Your task to perform on an android device: Go to location settings Image 0: 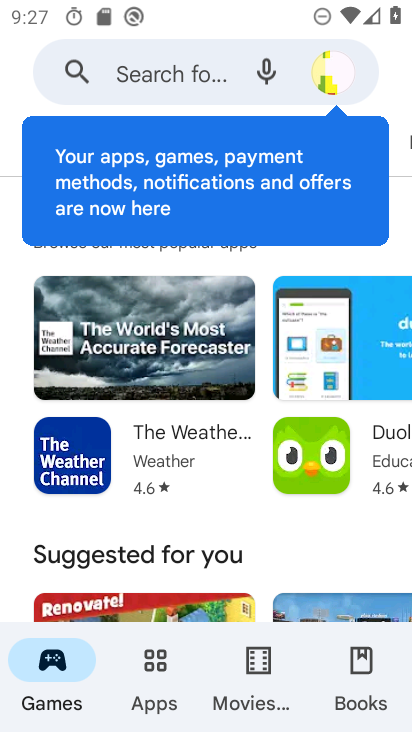
Step 0: press home button
Your task to perform on an android device: Go to location settings Image 1: 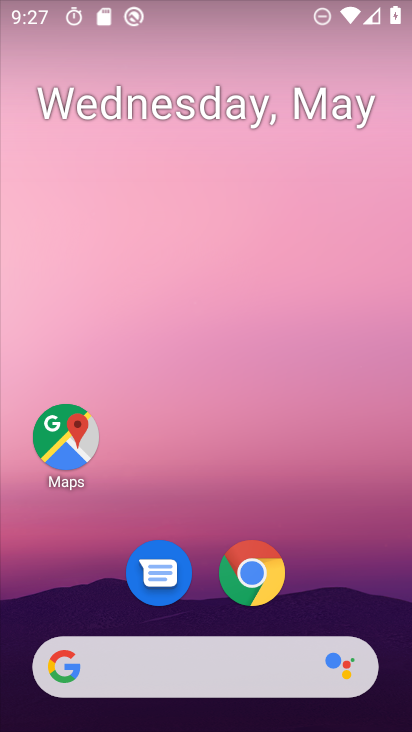
Step 1: click (69, 433)
Your task to perform on an android device: Go to location settings Image 2: 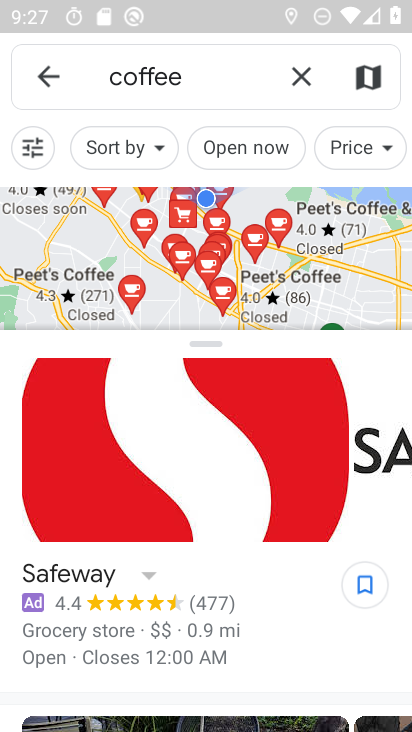
Step 2: press home button
Your task to perform on an android device: Go to location settings Image 3: 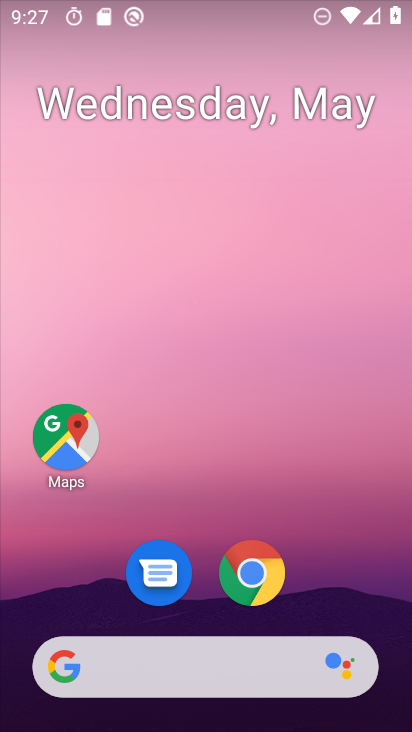
Step 3: drag from (390, 678) to (394, 124)
Your task to perform on an android device: Go to location settings Image 4: 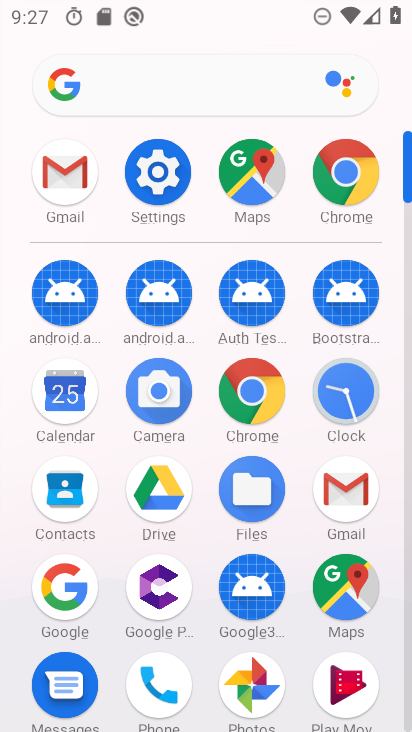
Step 4: click (176, 163)
Your task to perform on an android device: Go to location settings Image 5: 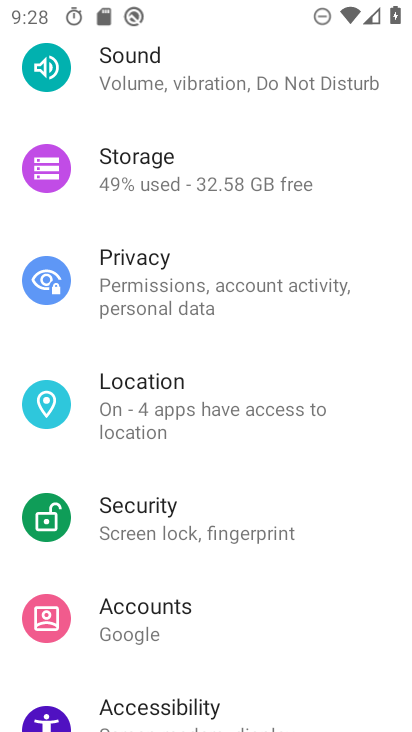
Step 5: click (132, 407)
Your task to perform on an android device: Go to location settings Image 6: 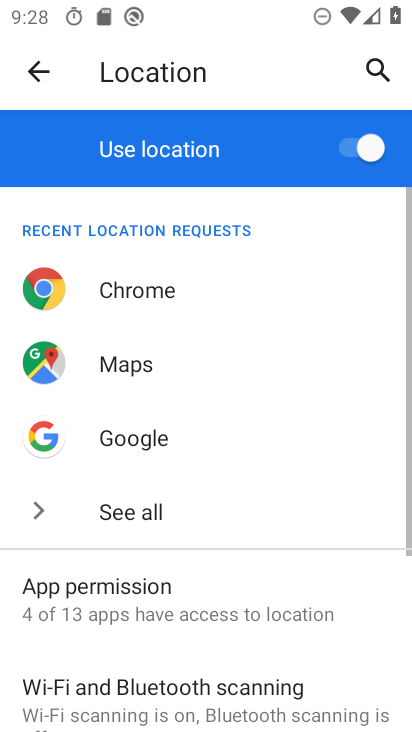
Step 6: drag from (246, 633) to (239, 403)
Your task to perform on an android device: Go to location settings Image 7: 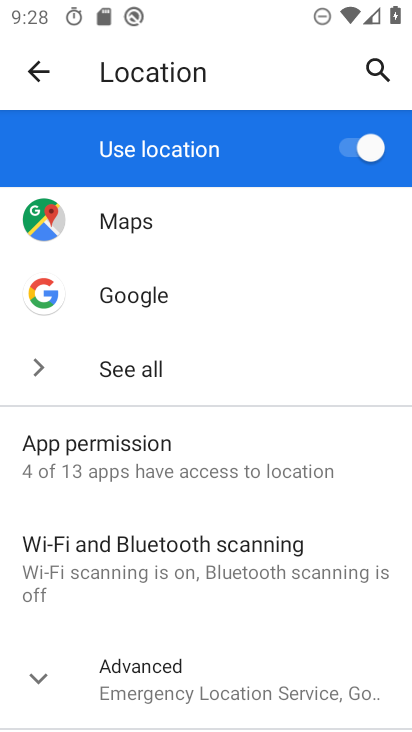
Step 7: drag from (260, 636) to (272, 295)
Your task to perform on an android device: Go to location settings Image 8: 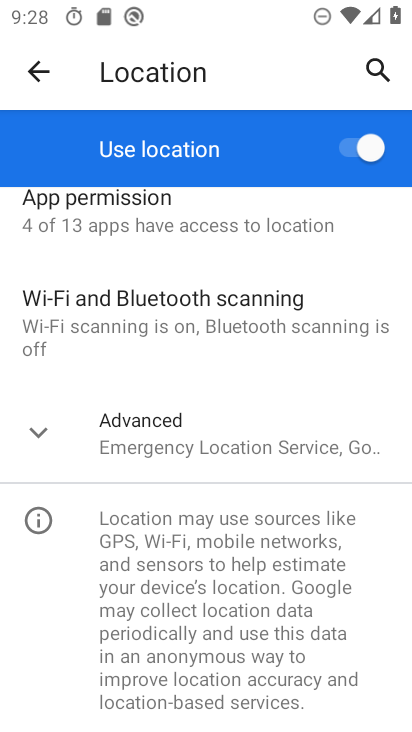
Step 8: click (36, 434)
Your task to perform on an android device: Go to location settings Image 9: 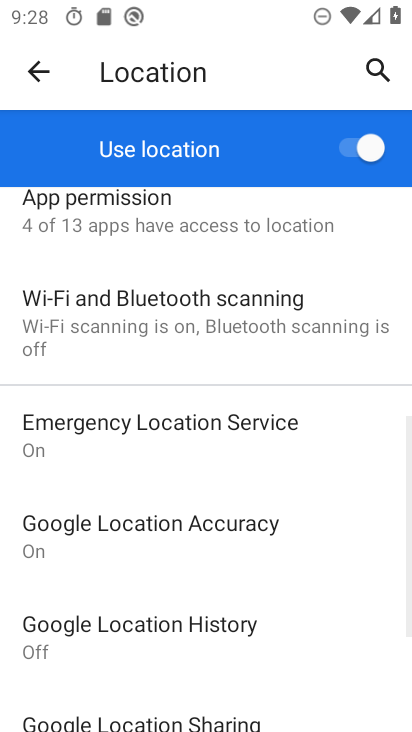
Step 9: task complete